Your task to perform on an android device: install app "Firefox Browser" Image 0: 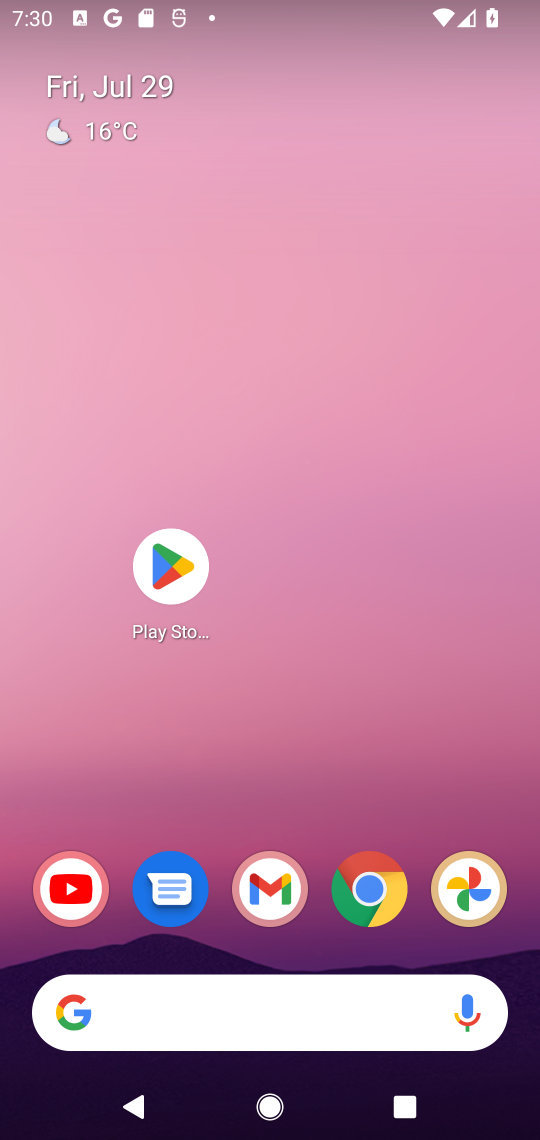
Step 0: press home button
Your task to perform on an android device: install app "Firefox Browser" Image 1: 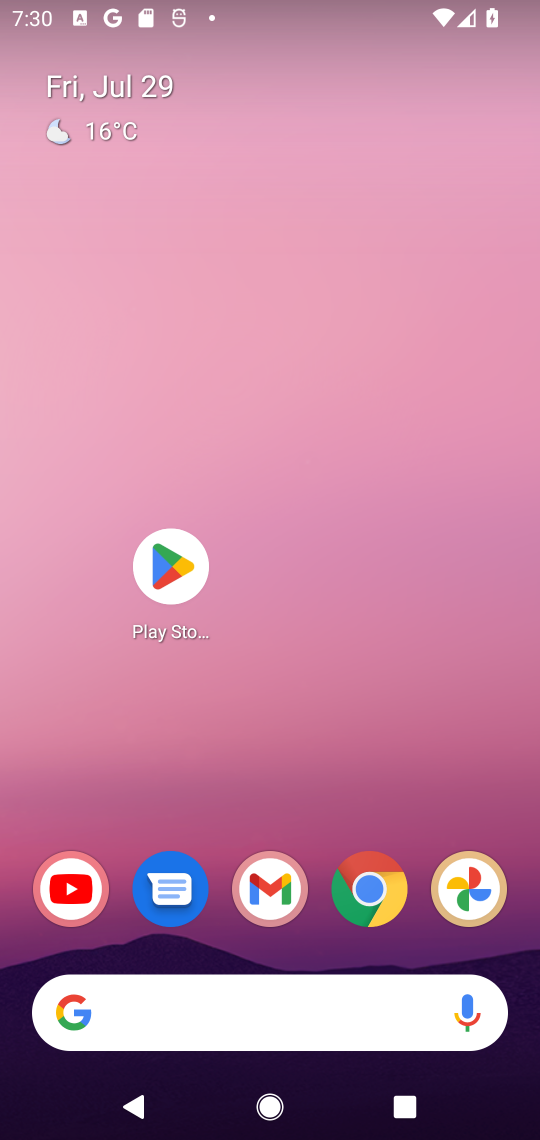
Step 1: click (178, 556)
Your task to perform on an android device: install app "Firefox Browser" Image 2: 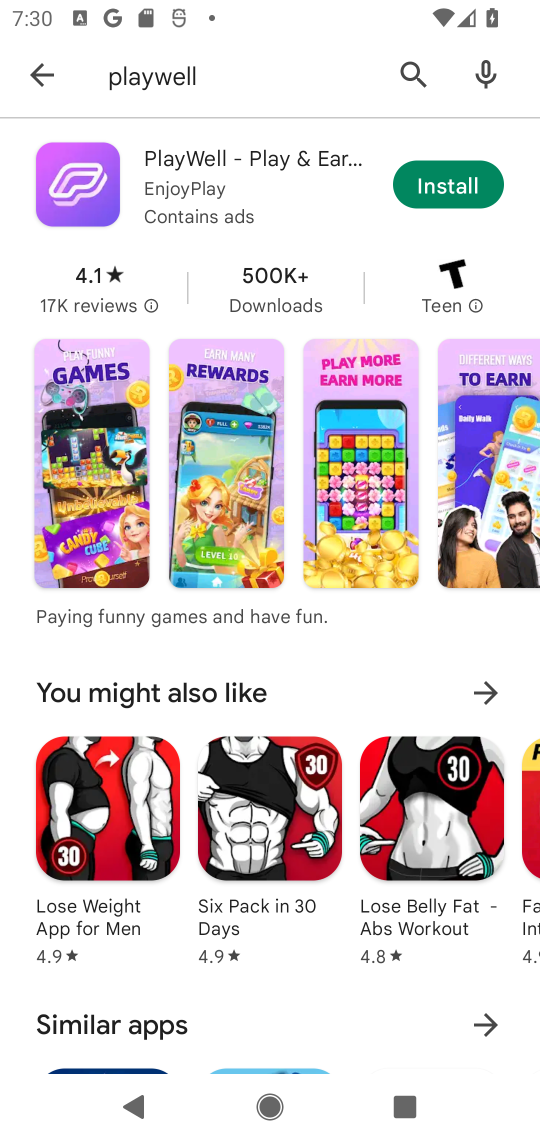
Step 2: click (412, 64)
Your task to perform on an android device: install app "Firefox Browser" Image 3: 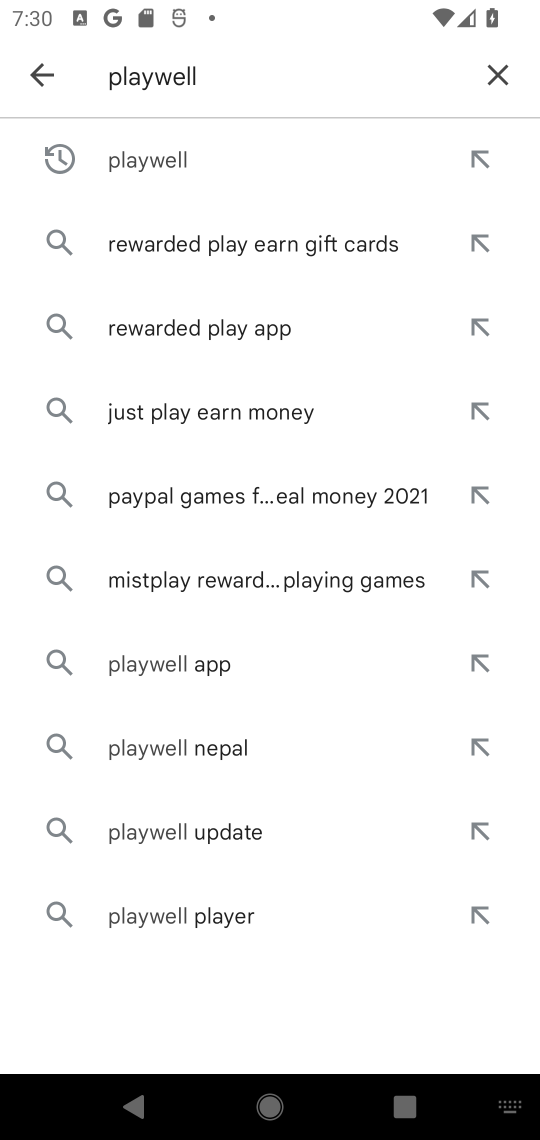
Step 3: click (499, 78)
Your task to perform on an android device: install app "Firefox Browser" Image 4: 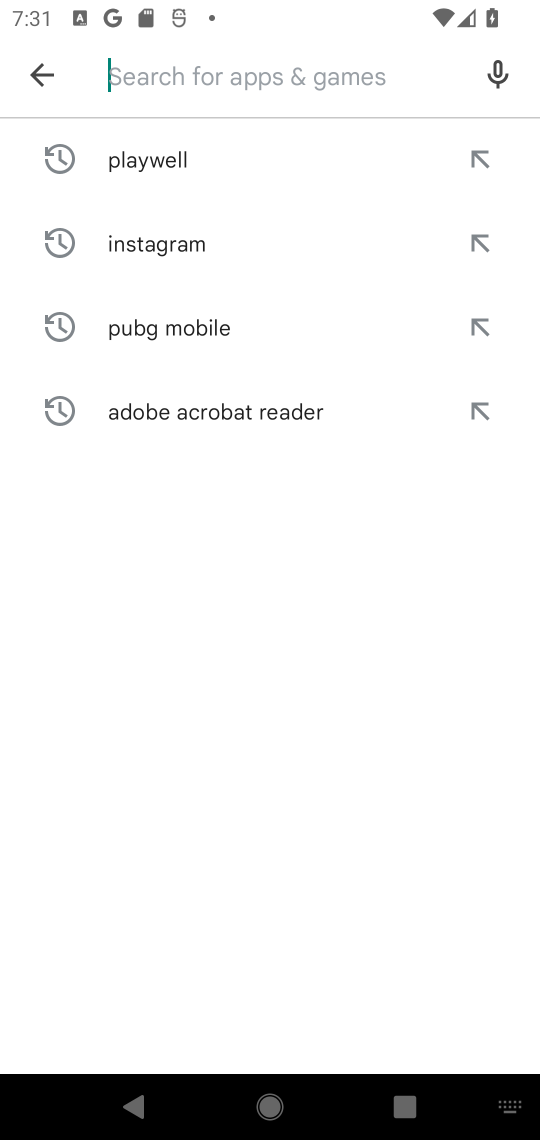
Step 4: type "Firefox Browser"
Your task to perform on an android device: install app "Firefox Browser" Image 5: 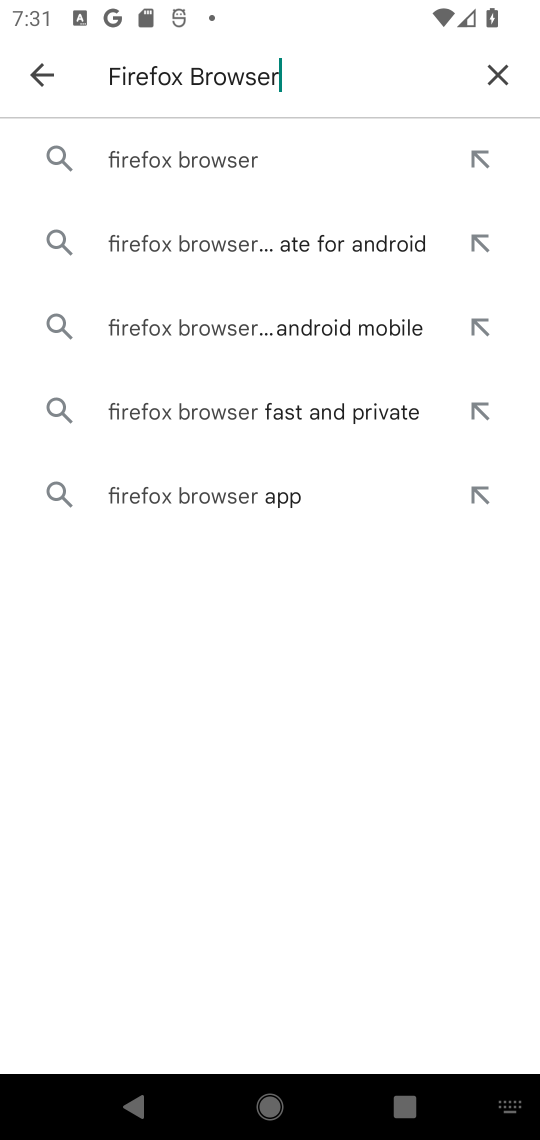
Step 5: click (136, 168)
Your task to perform on an android device: install app "Firefox Browser" Image 6: 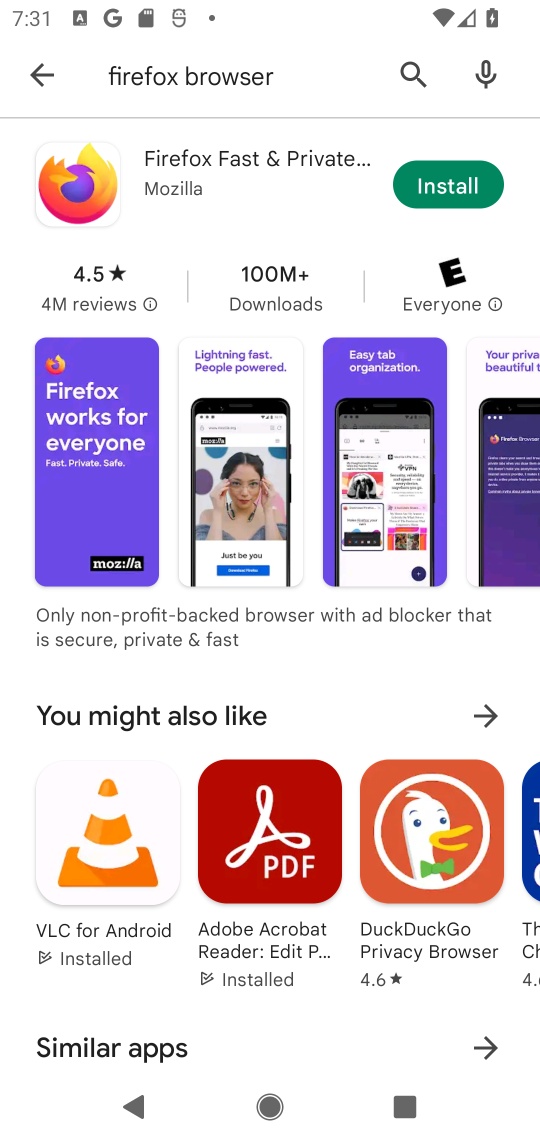
Step 6: click (439, 185)
Your task to perform on an android device: install app "Firefox Browser" Image 7: 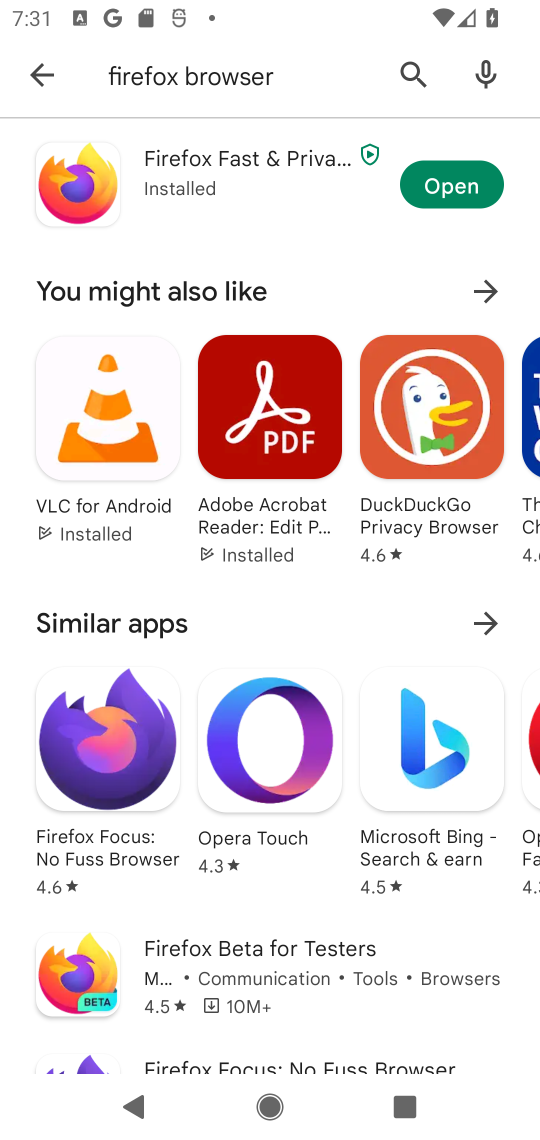
Step 7: task complete